Your task to perform on an android device: clear all cookies in the chrome app Image 0: 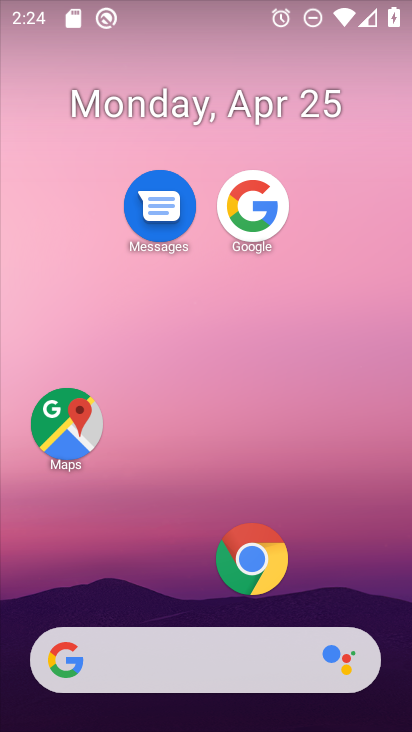
Step 0: click (256, 560)
Your task to perform on an android device: clear all cookies in the chrome app Image 1: 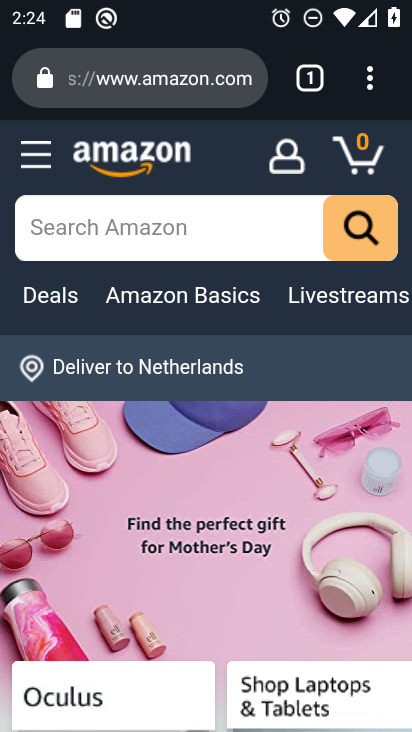
Step 1: click (364, 75)
Your task to perform on an android device: clear all cookies in the chrome app Image 2: 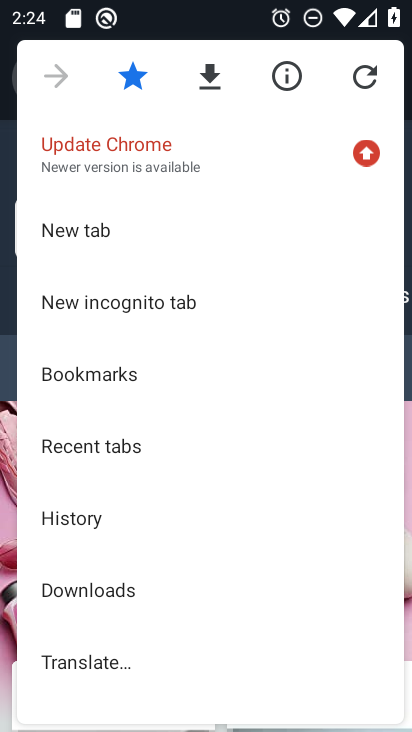
Step 2: drag from (230, 613) to (190, 166)
Your task to perform on an android device: clear all cookies in the chrome app Image 3: 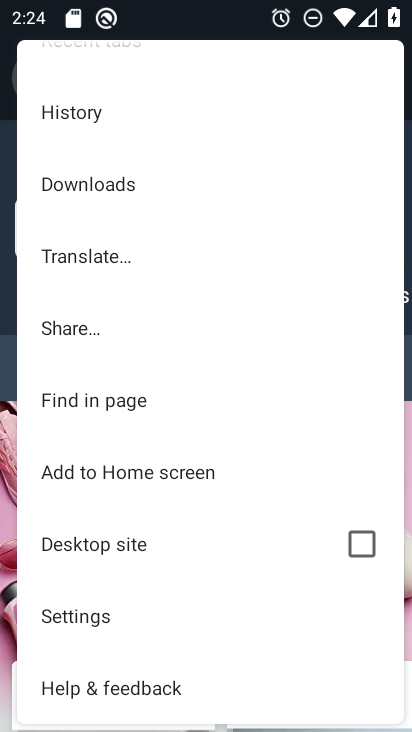
Step 3: click (98, 615)
Your task to perform on an android device: clear all cookies in the chrome app Image 4: 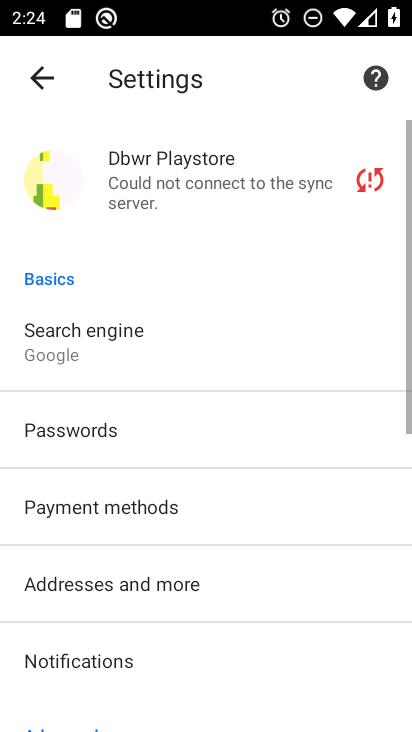
Step 4: drag from (247, 616) to (243, 237)
Your task to perform on an android device: clear all cookies in the chrome app Image 5: 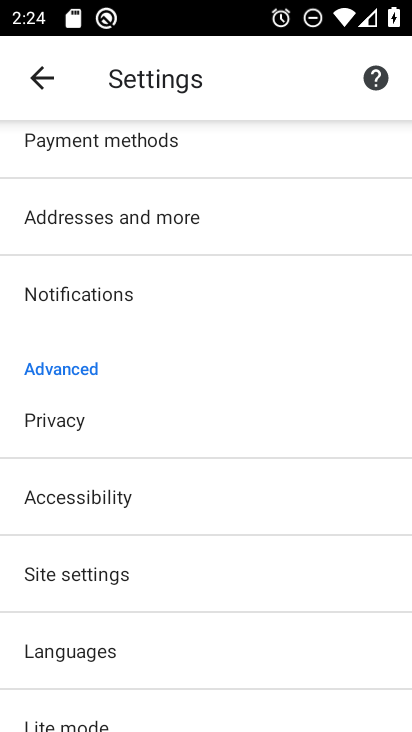
Step 5: click (90, 572)
Your task to perform on an android device: clear all cookies in the chrome app Image 6: 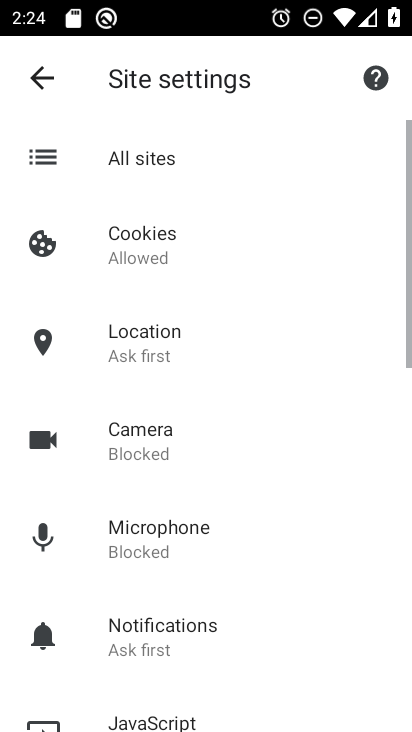
Step 6: drag from (255, 553) to (273, 394)
Your task to perform on an android device: clear all cookies in the chrome app Image 7: 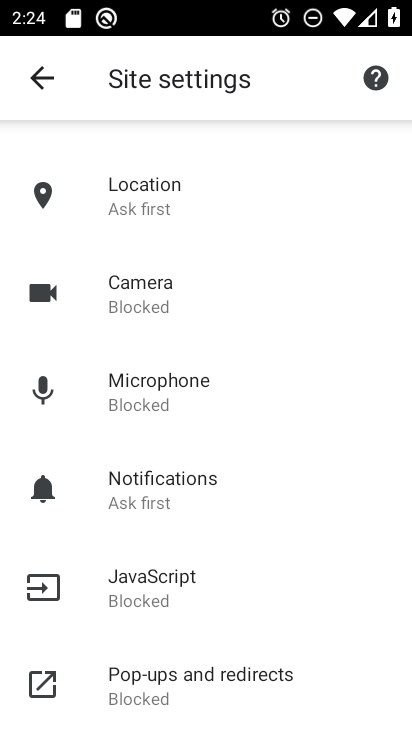
Step 7: drag from (207, 375) to (229, 552)
Your task to perform on an android device: clear all cookies in the chrome app Image 8: 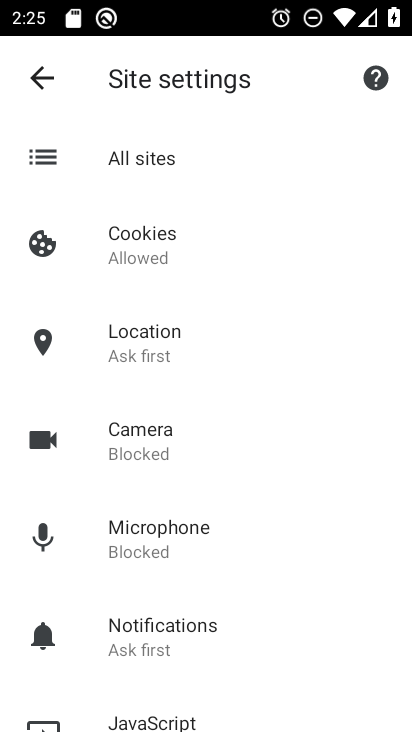
Step 8: click (127, 251)
Your task to perform on an android device: clear all cookies in the chrome app Image 9: 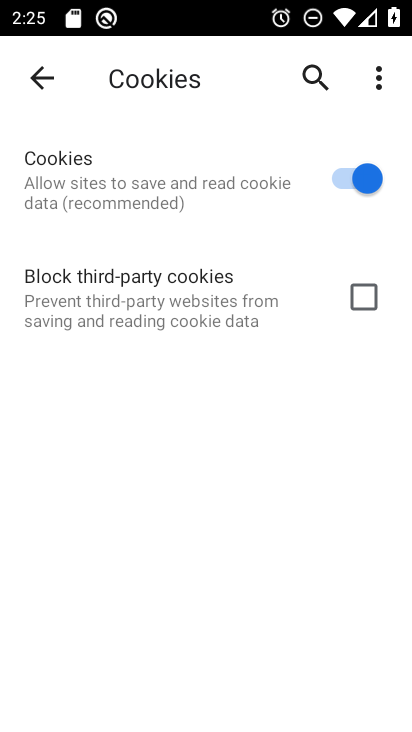
Step 9: press back button
Your task to perform on an android device: clear all cookies in the chrome app Image 10: 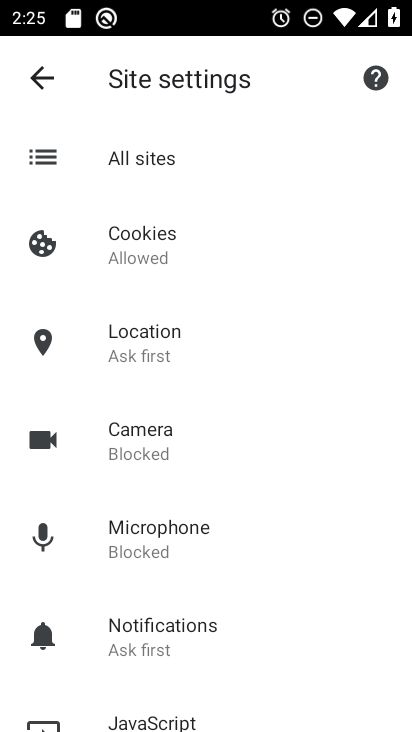
Step 10: drag from (244, 620) to (277, 208)
Your task to perform on an android device: clear all cookies in the chrome app Image 11: 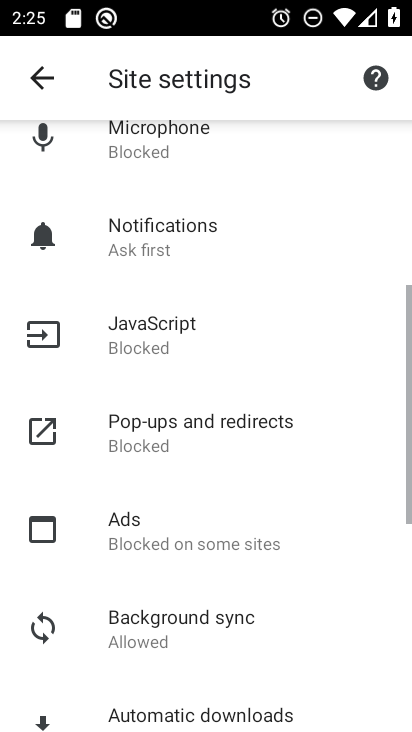
Step 11: drag from (225, 640) to (243, 234)
Your task to perform on an android device: clear all cookies in the chrome app Image 12: 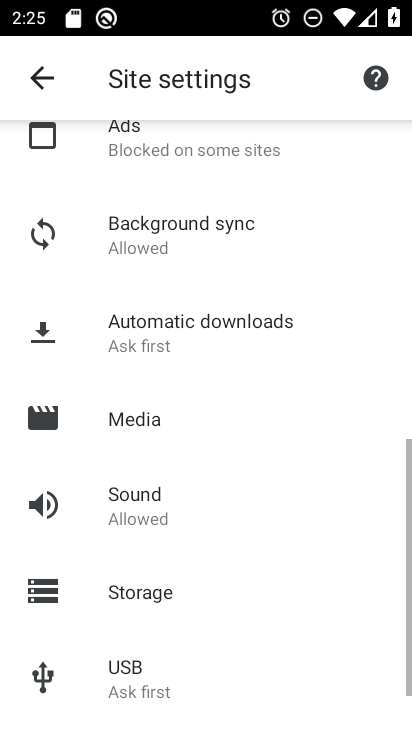
Step 12: drag from (214, 647) to (227, 280)
Your task to perform on an android device: clear all cookies in the chrome app Image 13: 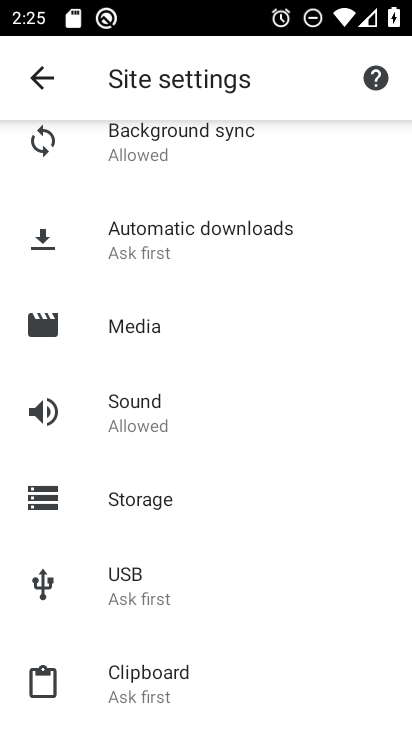
Step 13: press back button
Your task to perform on an android device: clear all cookies in the chrome app Image 14: 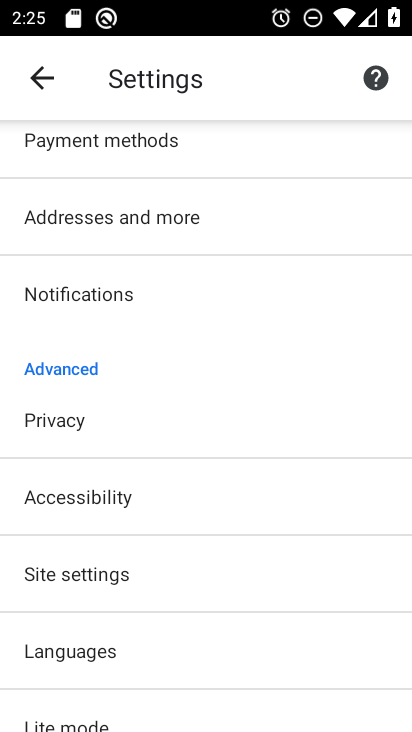
Step 14: press back button
Your task to perform on an android device: clear all cookies in the chrome app Image 15: 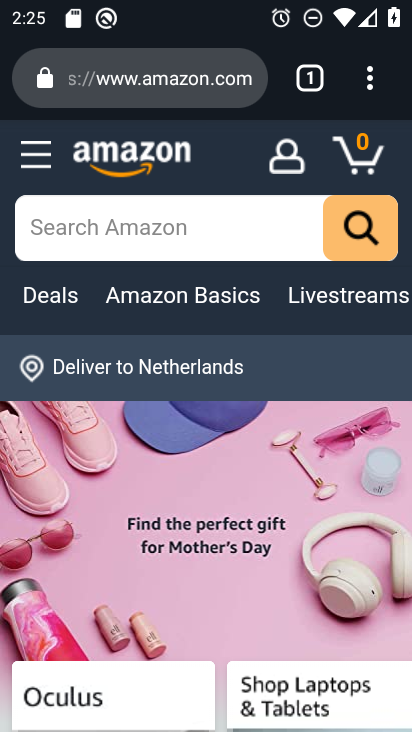
Step 15: click (367, 70)
Your task to perform on an android device: clear all cookies in the chrome app Image 16: 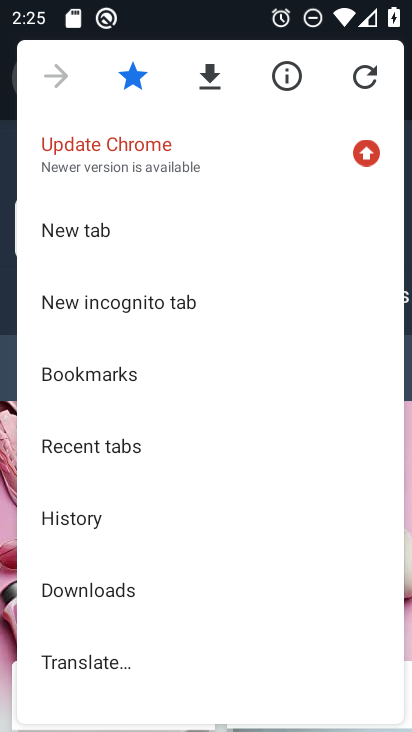
Step 16: drag from (202, 579) to (249, 206)
Your task to perform on an android device: clear all cookies in the chrome app Image 17: 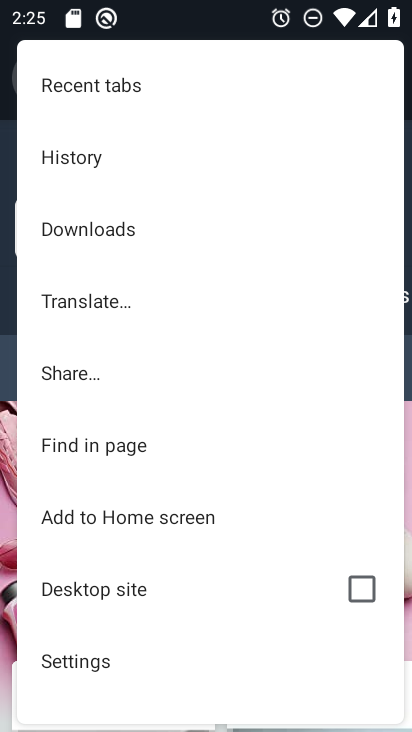
Step 17: click (89, 665)
Your task to perform on an android device: clear all cookies in the chrome app Image 18: 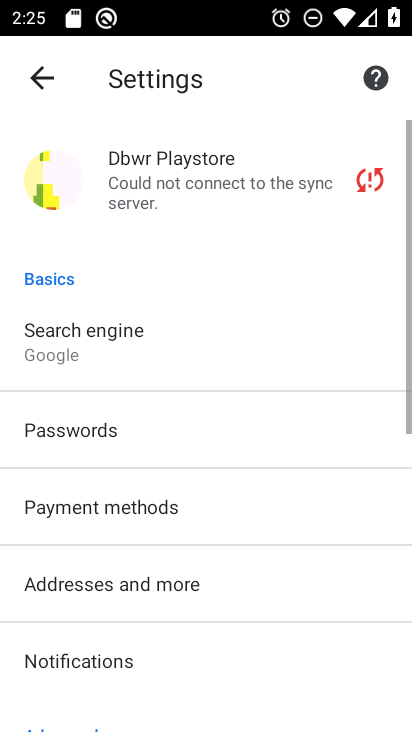
Step 18: drag from (198, 614) to (235, 314)
Your task to perform on an android device: clear all cookies in the chrome app Image 19: 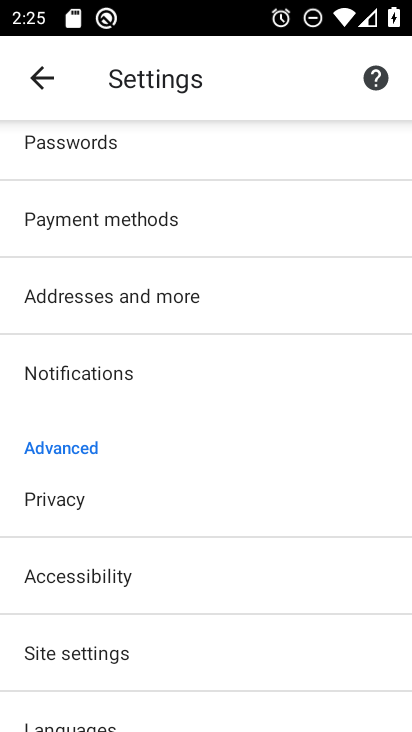
Step 19: click (95, 503)
Your task to perform on an android device: clear all cookies in the chrome app Image 20: 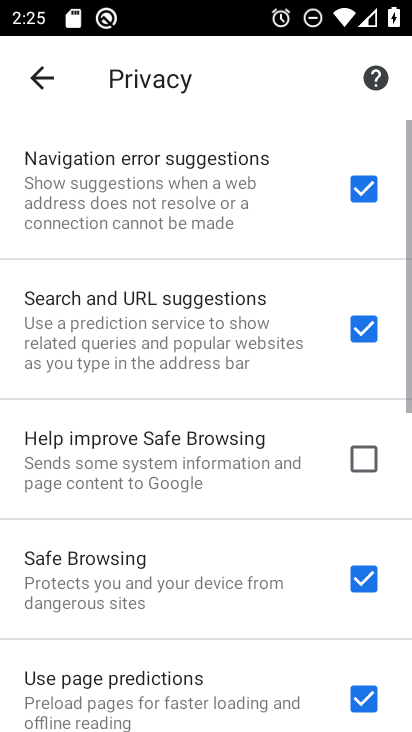
Step 20: drag from (187, 575) to (259, 15)
Your task to perform on an android device: clear all cookies in the chrome app Image 21: 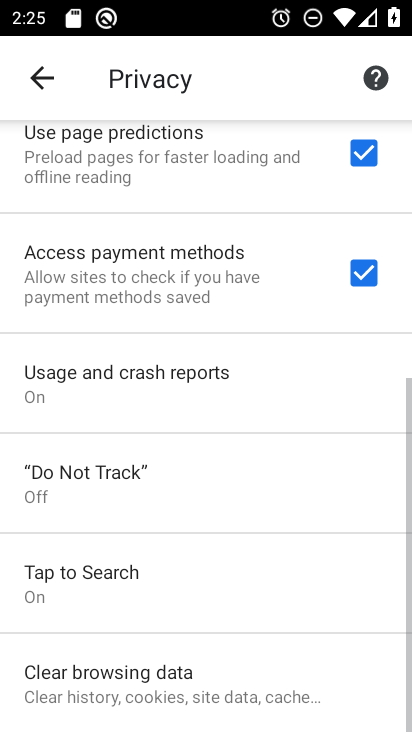
Step 21: drag from (251, 593) to (238, 407)
Your task to perform on an android device: clear all cookies in the chrome app Image 22: 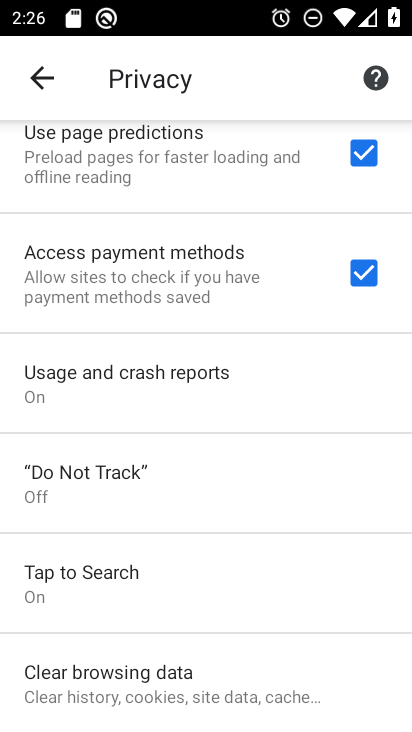
Step 22: click (192, 692)
Your task to perform on an android device: clear all cookies in the chrome app Image 23: 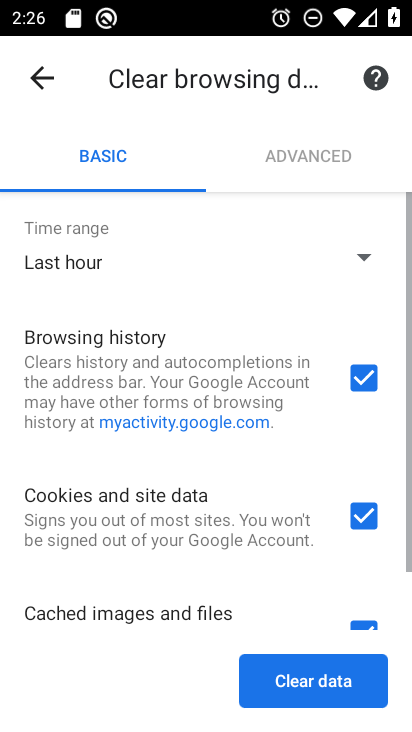
Step 23: drag from (224, 532) to (255, 331)
Your task to perform on an android device: clear all cookies in the chrome app Image 24: 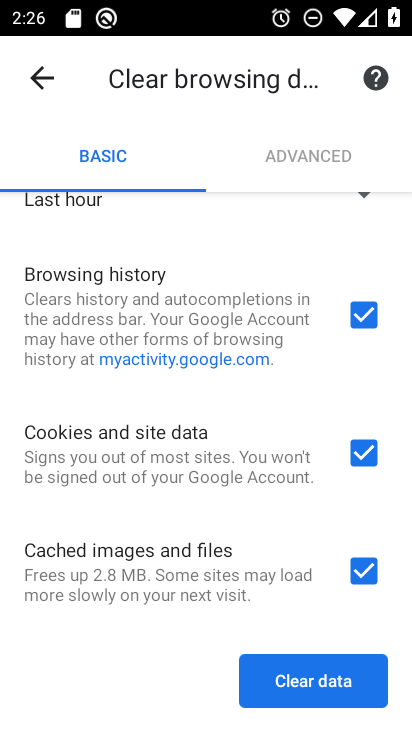
Step 24: click (365, 313)
Your task to perform on an android device: clear all cookies in the chrome app Image 25: 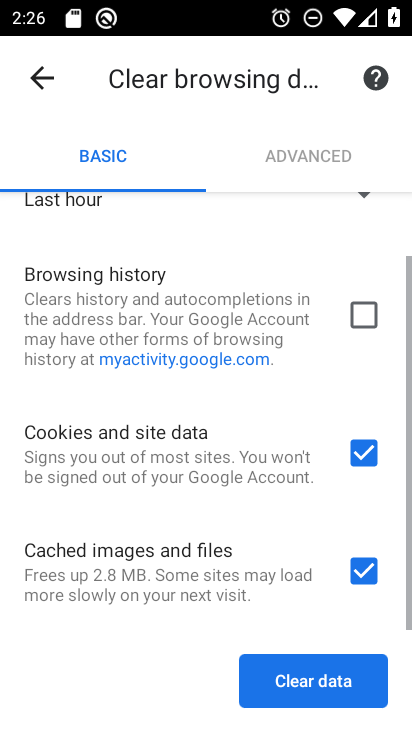
Step 25: click (363, 575)
Your task to perform on an android device: clear all cookies in the chrome app Image 26: 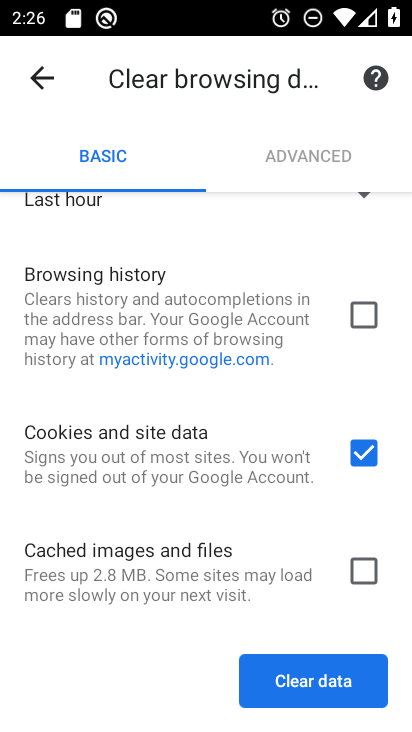
Step 26: click (286, 672)
Your task to perform on an android device: clear all cookies in the chrome app Image 27: 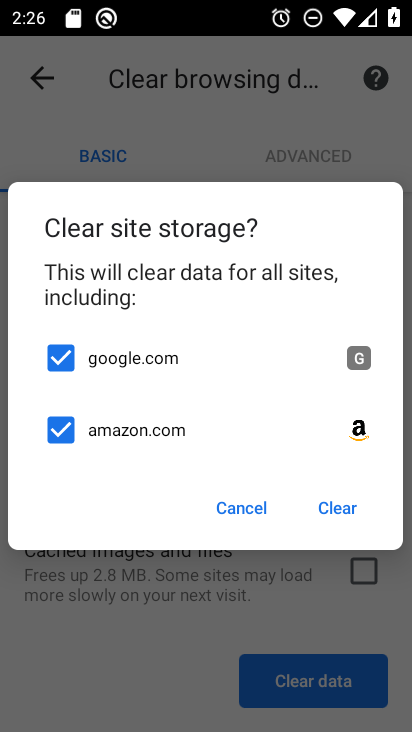
Step 27: click (344, 501)
Your task to perform on an android device: clear all cookies in the chrome app Image 28: 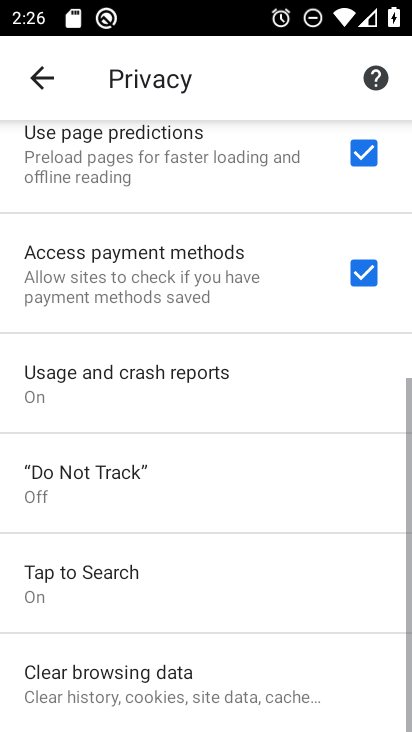
Step 28: task complete